Your task to perform on an android device: see creations saved in the google photos Image 0: 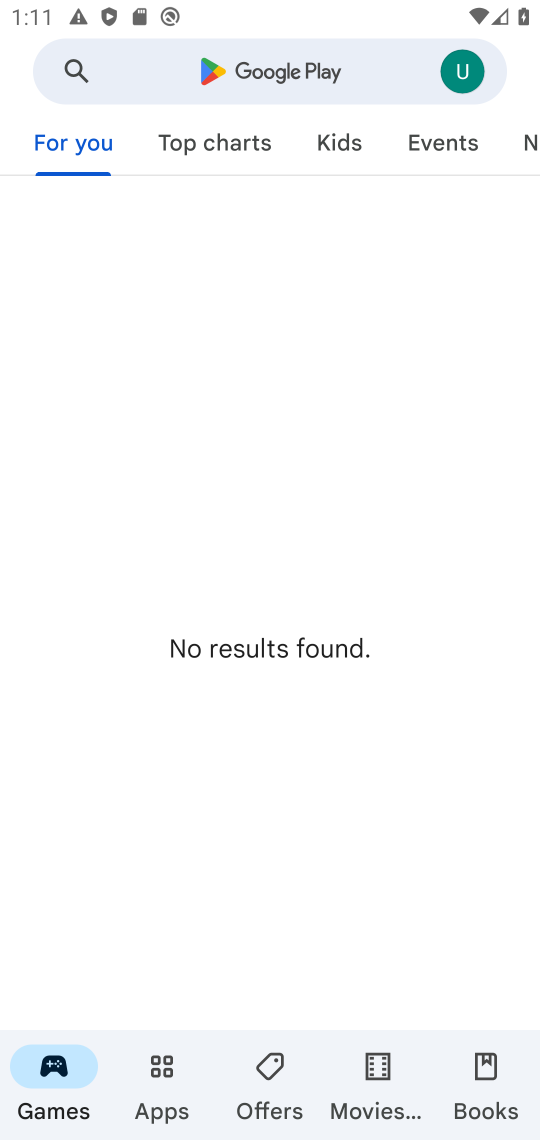
Step 0: press home button
Your task to perform on an android device: see creations saved in the google photos Image 1: 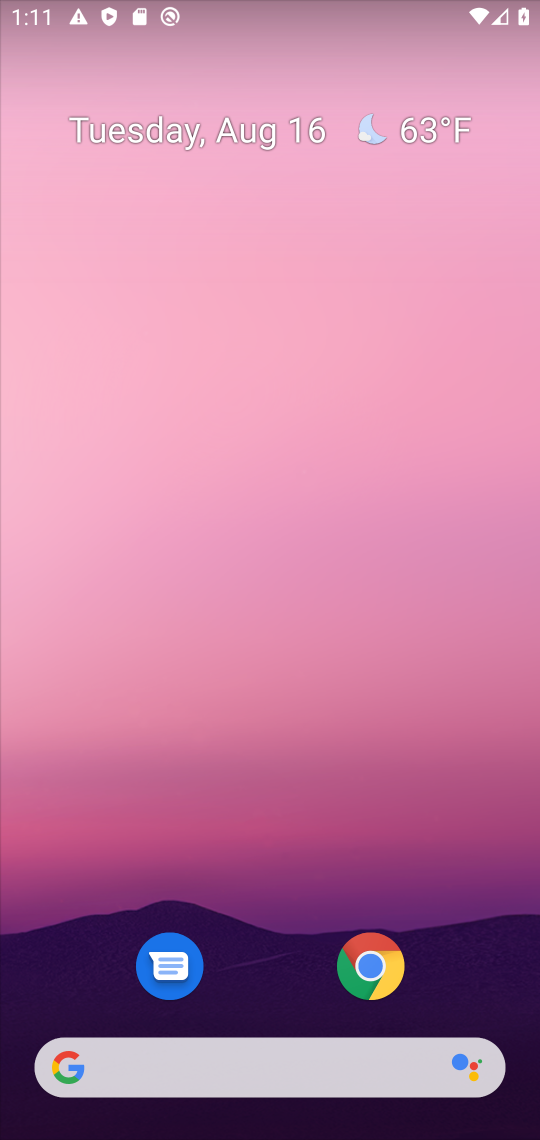
Step 1: drag from (258, 886) to (213, 65)
Your task to perform on an android device: see creations saved in the google photos Image 2: 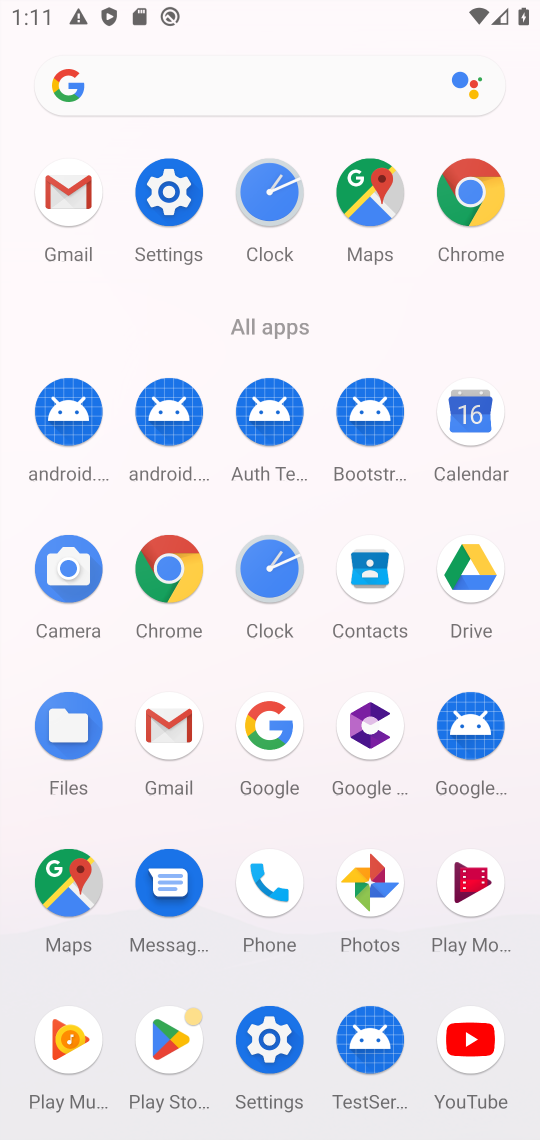
Step 2: click (371, 878)
Your task to perform on an android device: see creations saved in the google photos Image 3: 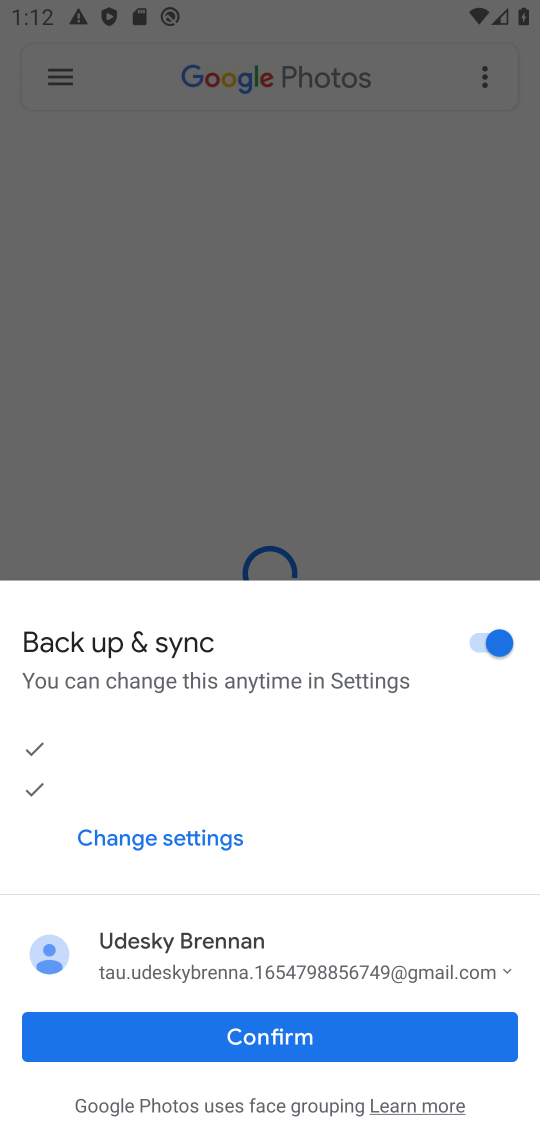
Step 3: click (272, 1029)
Your task to perform on an android device: see creations saved in the google photos Image 4: 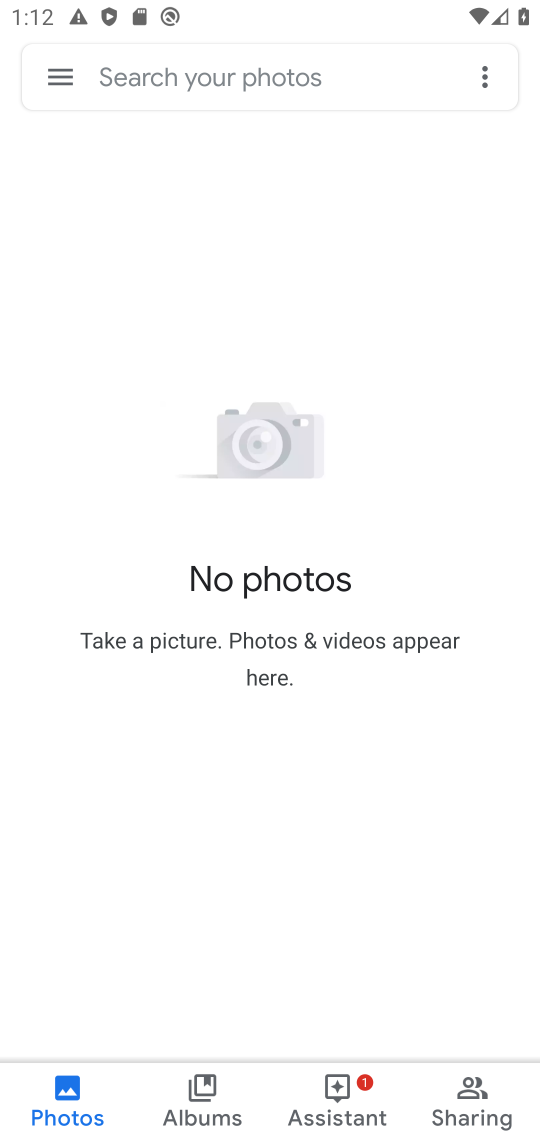
Step 4: click (140, 69)
Your task to perform on an android device: see creations saved in the google photos Image 5: 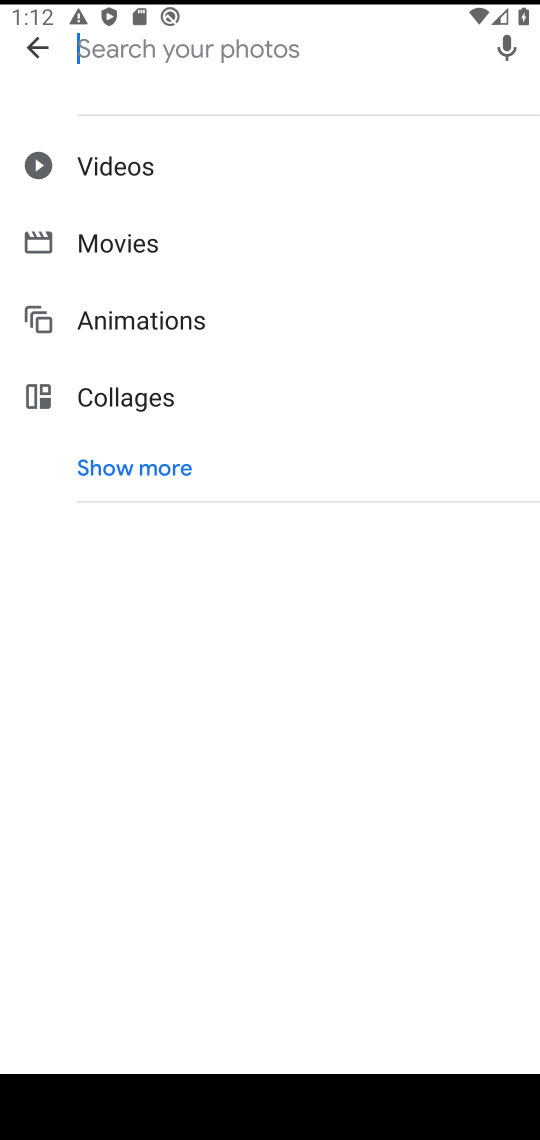
Step 5: click (121, 456)
Your task to perform on an android device: see creations saved in the google photos Image 6: 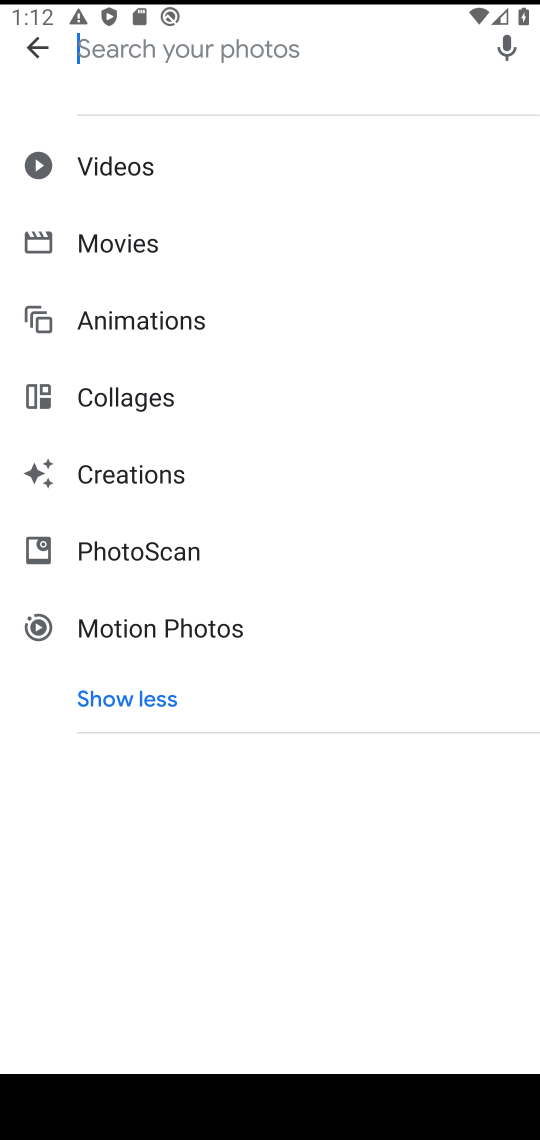
Step 6: click (133, 474)
Your task to perform on an android device: see creations saved in the google photos Image 7: 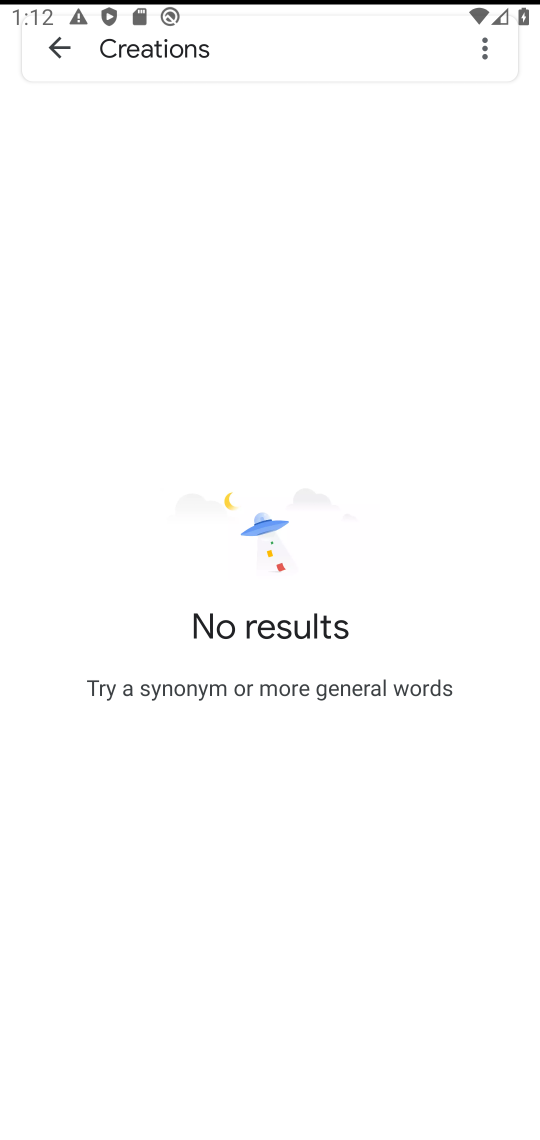
Step 7: task complete